Your task to perform on an android device: open sync settings in chrome Image 0: 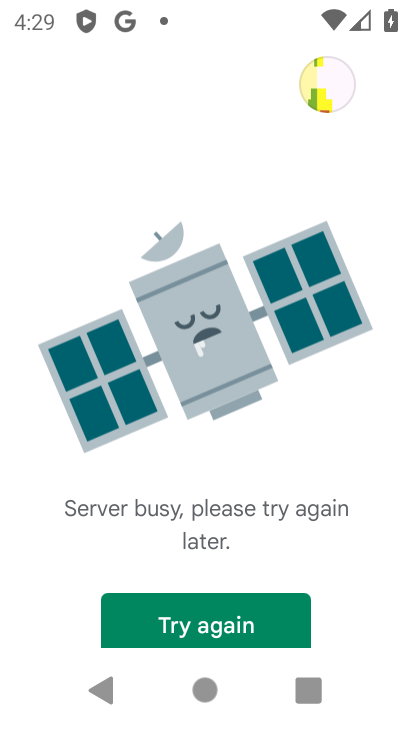
Step 0: press back button
Your task to perform on an android device: open sync settings in chrome Image 1: 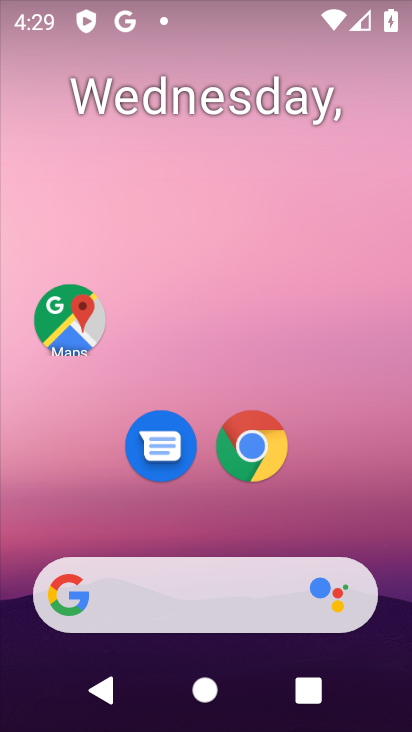
Step 1: click (244, 456)
Your task to perform on an android device: open sync settings in chrome Image 2: 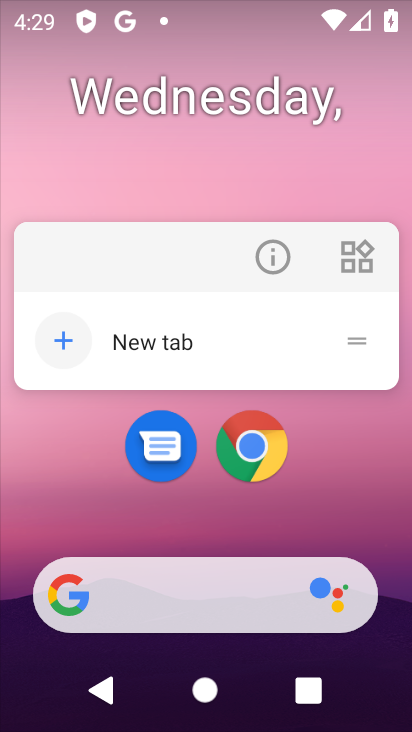
Step 2: click (247, 452)
Your task to perform on an android device: open sync settings in chrome Image 3: 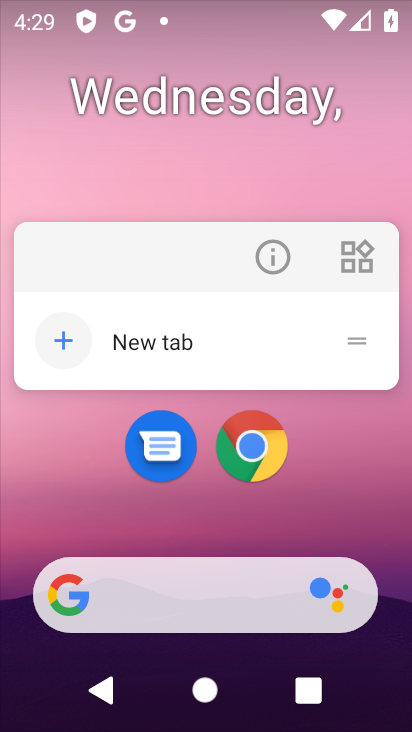
Step 3: click (247, 453)
Your task to perform on an android device: open sync settings in chrome Image 4: 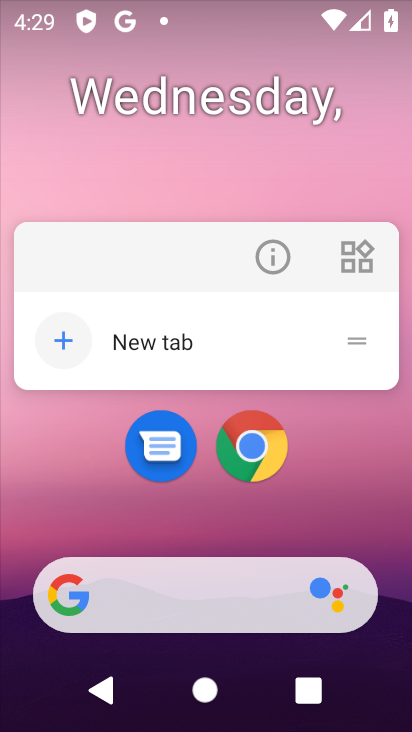
Step 4: click (257, 457)
Your task to perform on an android device: open sync settings in chrome Image 5: 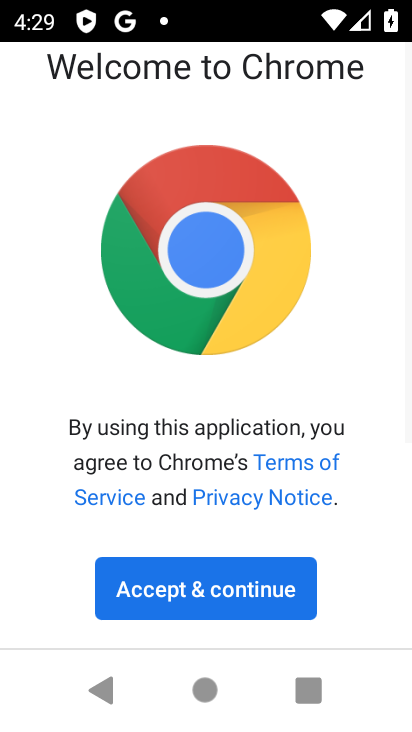
Step 5: click (254, 598)
Your task to perform on an android device: open sync settings in chrome Image 6: 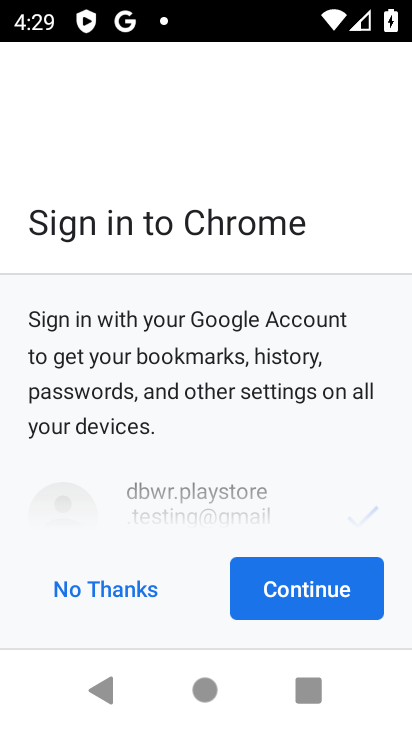
Step 6: click (327, 607)
Your task to perform on an android device: open sync settings in chrome Image 7: 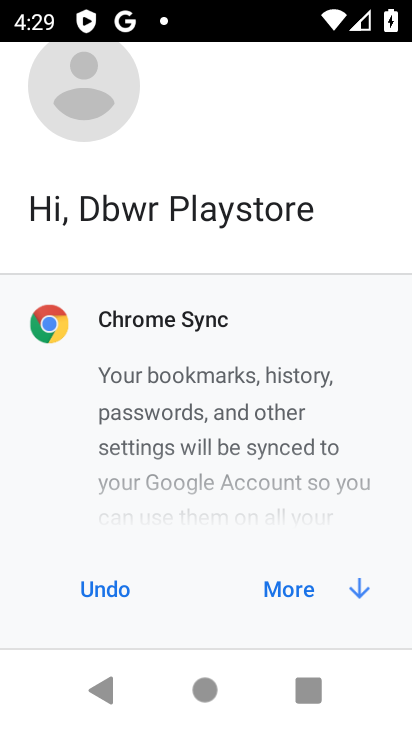
Step 7: click (326, 603)
Your task to perform on an android device: open sync settings in chrome Image 8: 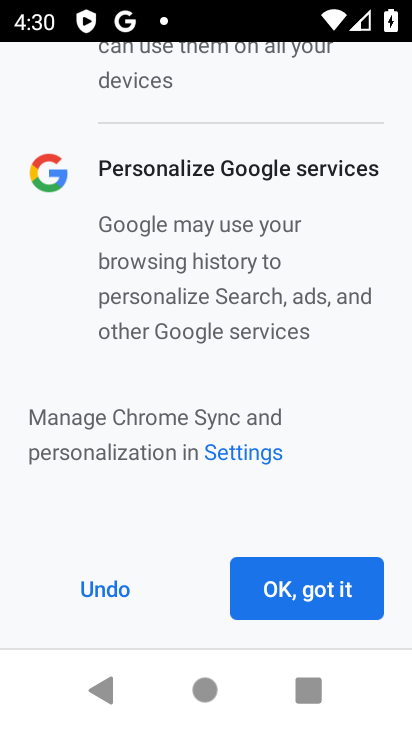
Step 8: click (334, 603)
Your task to perform on an android device: open sync settings in chrome Image 9: 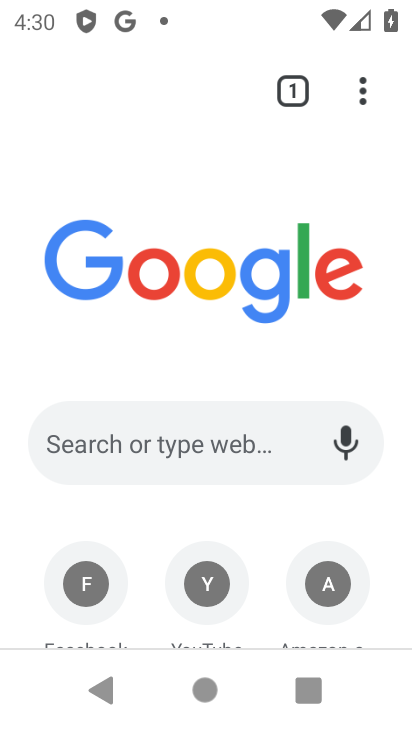
Step 9: click (369, 96)
Your task to perform on an android device: open sync settings in chrome Image 10: 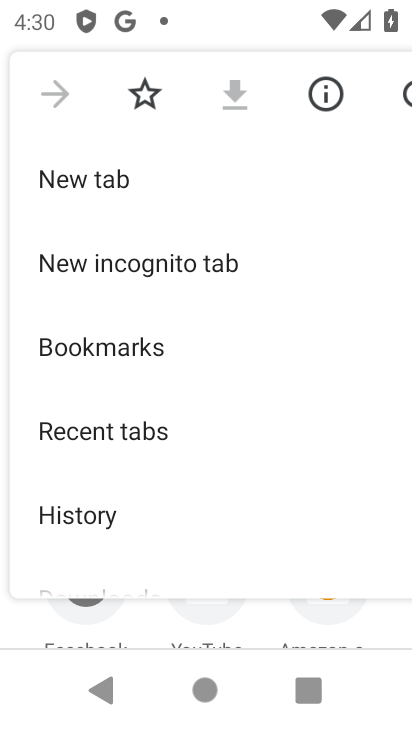
Step 10: drag from (243, 535) to (349, 178)
Your task to perform on an android device: open sync settings in chrome Image 11: 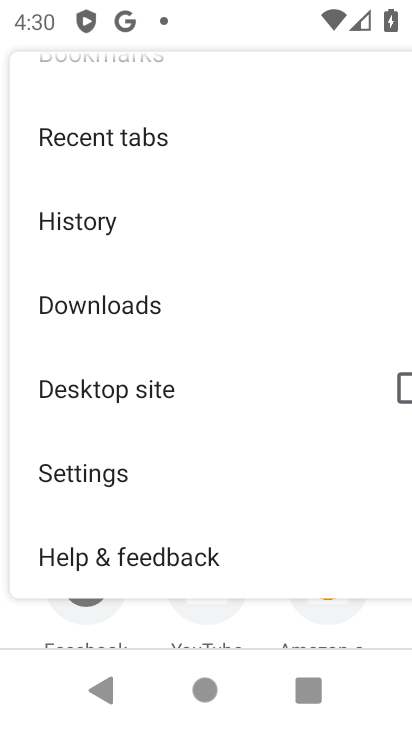
Step 11: click (207, 496)
Your task to perform on an android device: open sync settings in chrome Image 12: 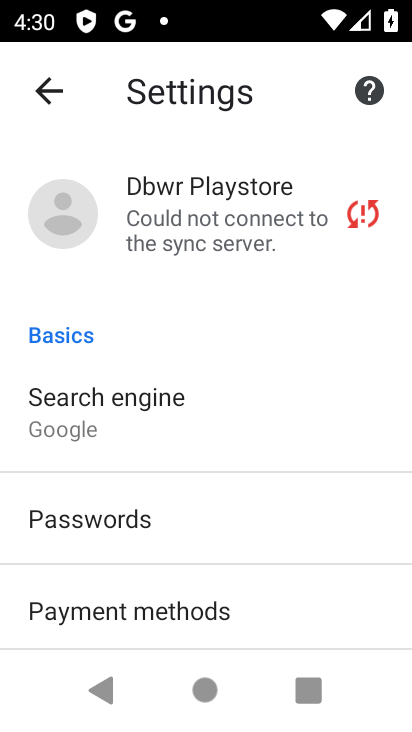
Step 12: drag from (210, 600) to (259, 582)
Your task to perform on an android device: open sync settings in chrome Image 13: 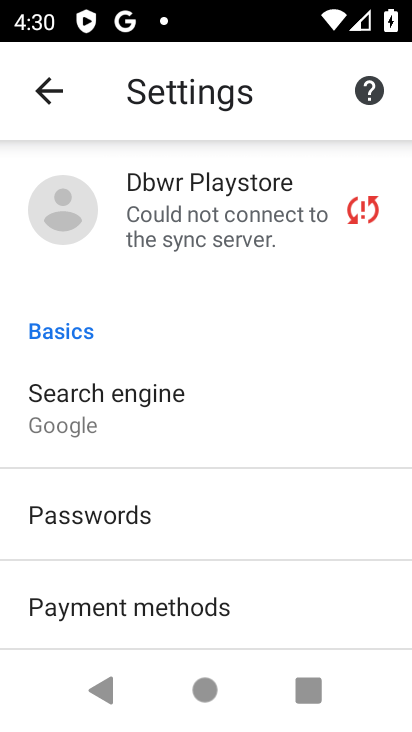
Step 13: click (250, 233)
Your task to perform on an android device: open sync settings in chrome Image 14: 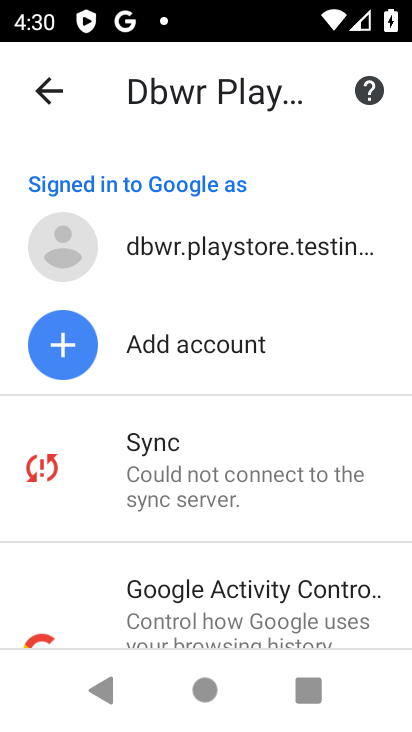
Step 14: click (236, 476)
Your task to perform on an android device: open sync settings in chrome Image 15: 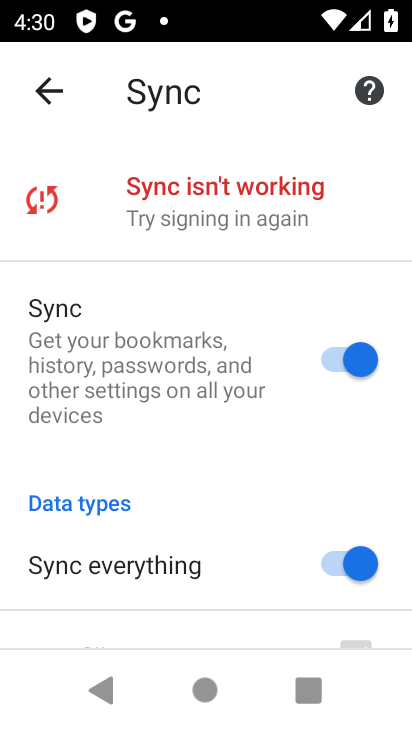
Step 15: task complete